Your task to perform on an android device: open chrome and create a bookmark for the current page Image 0: 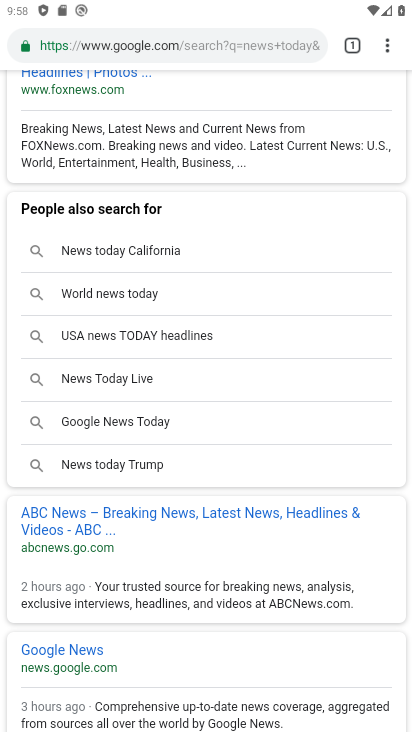
Step 0: press home button
Your task to perform on an android device: open chrome and create a bookmark for the current page Image 1: 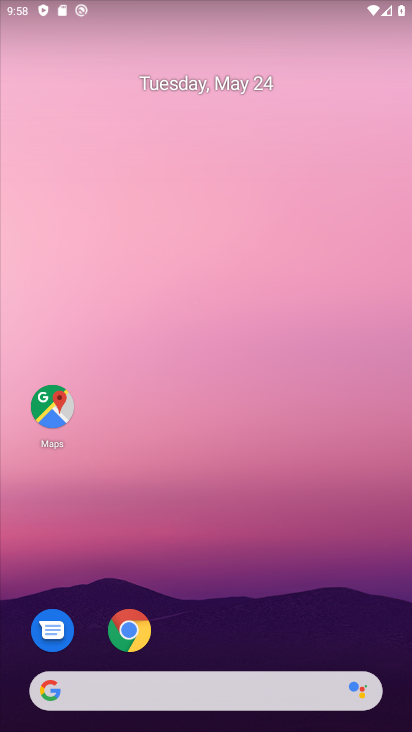
Step 1: click (131, 628)
Your task to perform on an android device: open chrome and create a bookmark for the current page Image 2: 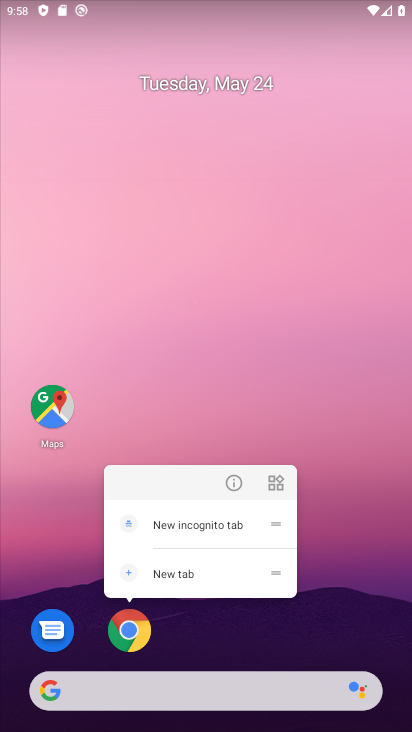
Step 2: click (131, 628)
Your task to perform on an android device: open chrome and create a bookmark for the current page Image 3: 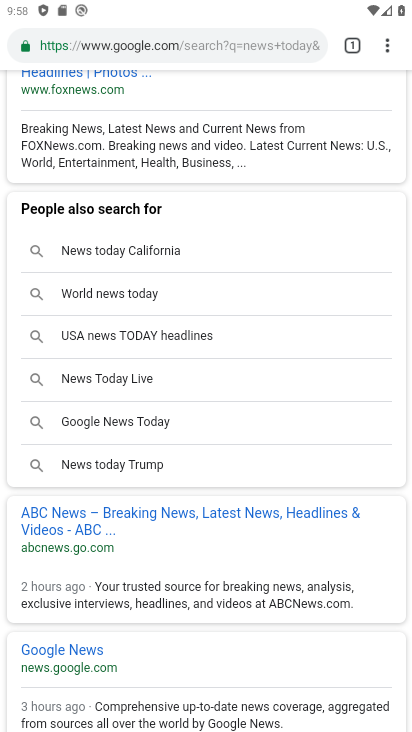
Step 3: click (386, 40)
Your task to perform on an android device: open chrome and create a bookmark for the current page Image 4: 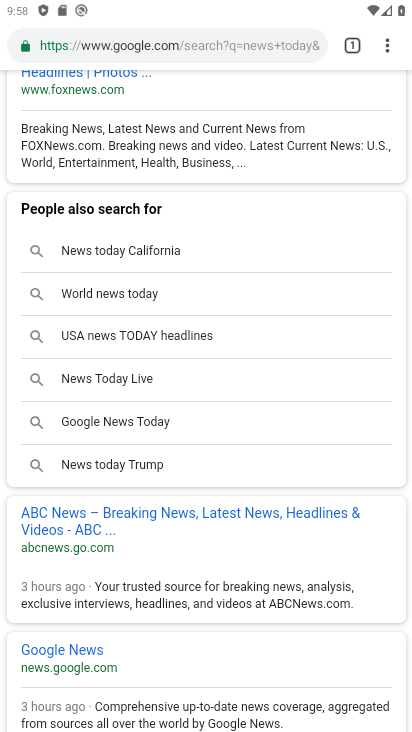
Step 4: click (387, 44)
Your task to perform on an android device: open chrome and create a bookmark for the current page Image 5: 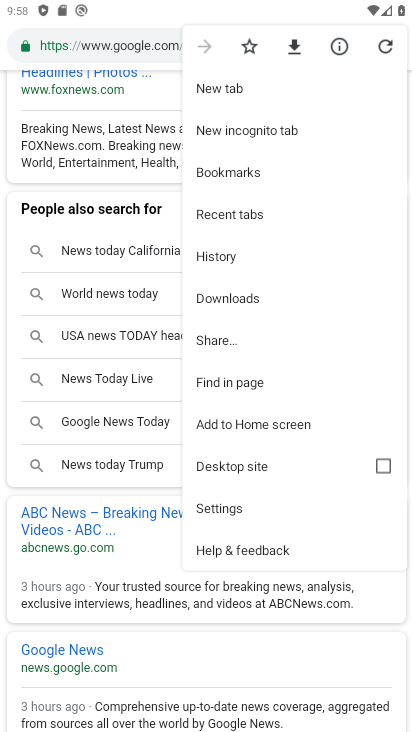
Step 5: click (249, 44)
Your task to perform on an android device: open chrome and create a bookmark for the current page Image 6: 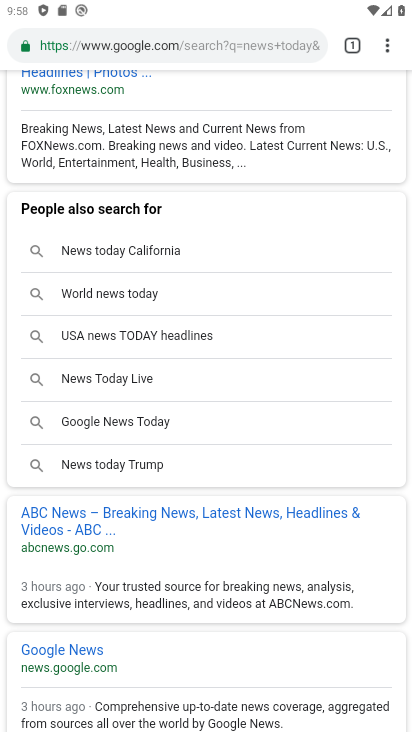
Step 6: click (391, 46)
Your task to perform on an android device: open chrome and create a bookmark for the current page Image 7: 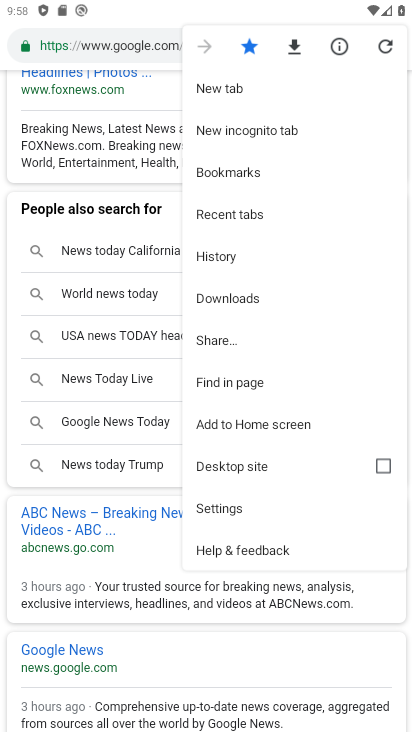
Step 7: task complete